Your task to perform on an android device: check battery use Image 0: 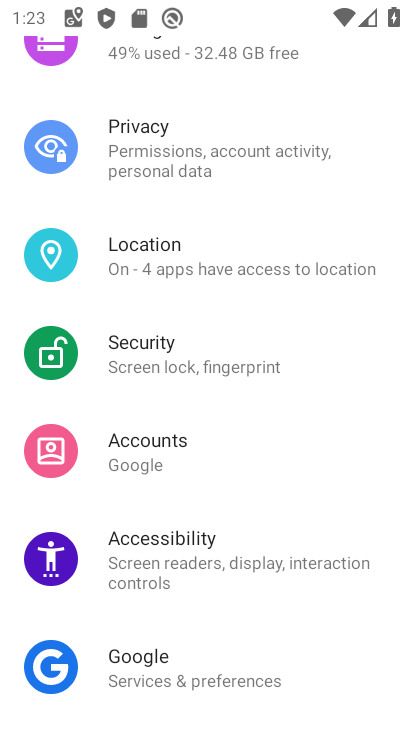
Step 0: press home button
Your task to perform on an android device: check battery use Image 1: 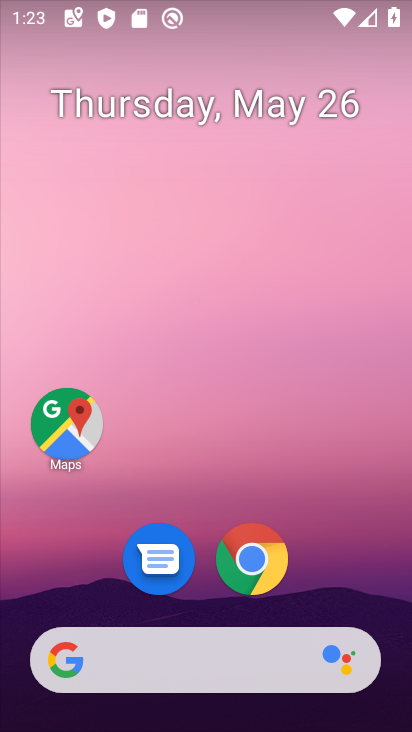
Step 1: drag from (210, 365) to (278, 24)
Your task to perform on an android device: check battery use Image 2: 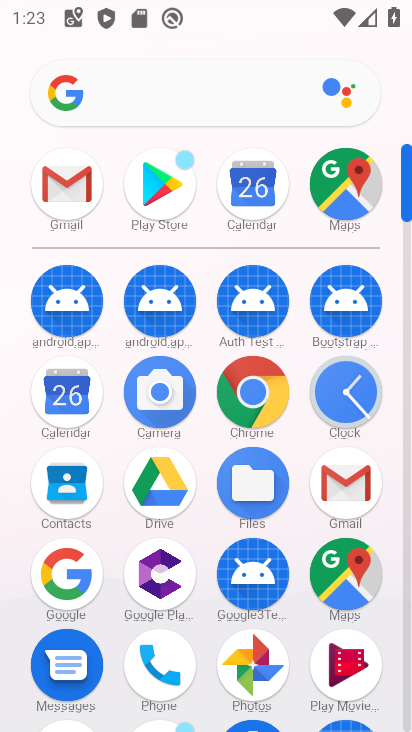
Step 2: drag from (182, 603) to (212, 242)
Your task to perform on an android device: check battery use Image 3: 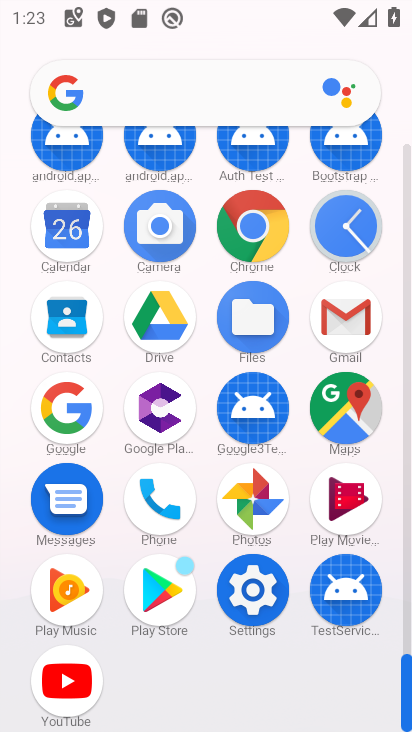
Step 3: click (257, 599)
Your task to perform on an android device: check battery use Image 4: 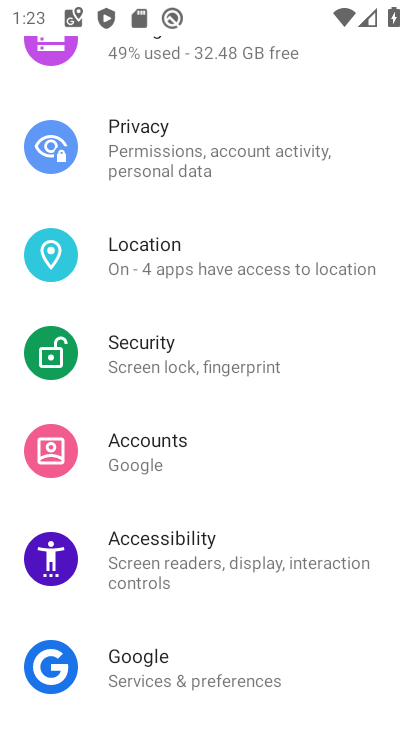
Step 4: drag from (277, 209) to (219, 606)
Your task to perform on an android device: check battery use Image 5: 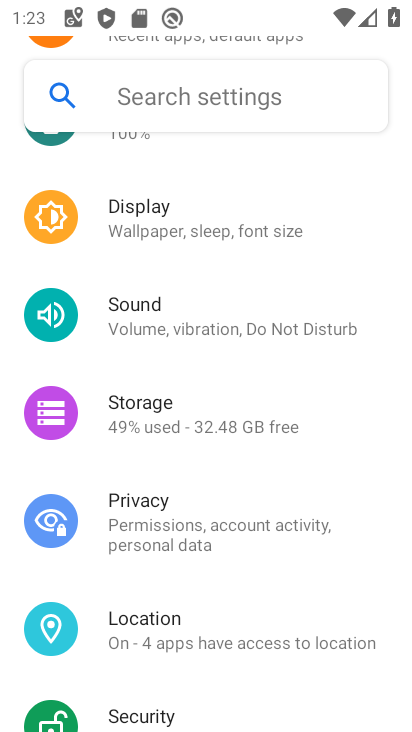
Step 5: drag from (266, 297) to (224, 612)
Your task to perform on an android device: check battery use Image 6: 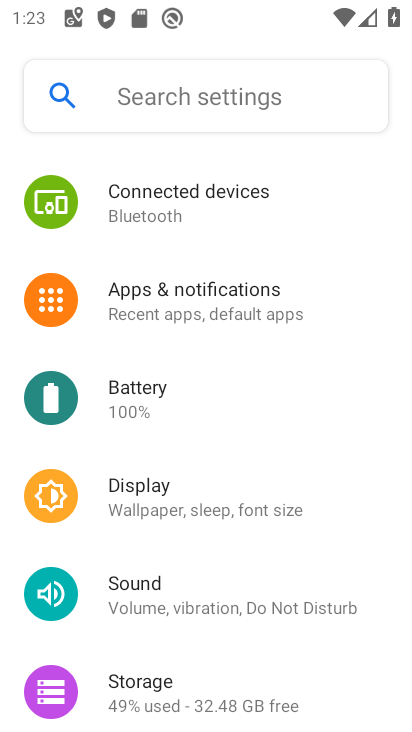
Step 6: click (154, 396)
Your task to perform on an android device: check battery use Image 7: 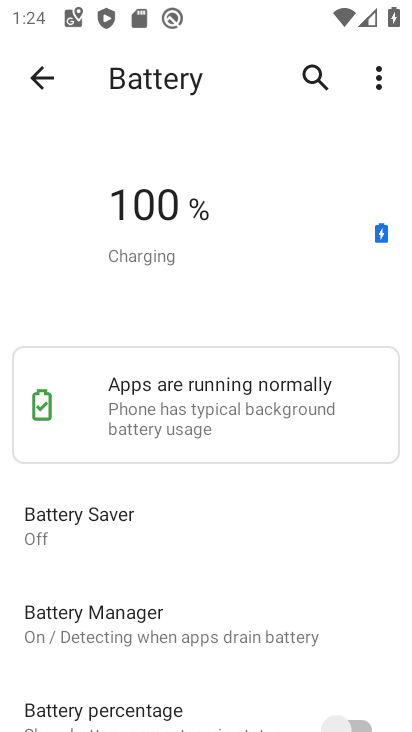
Step 7: click (376, 85)
Your task to perform on an android device: check battery use Image 8: 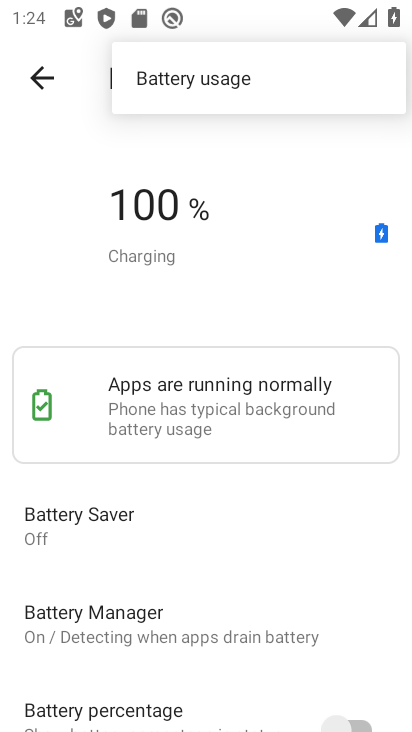
Step 8: click (203, 82)
Your task to perform on an android device: check battery use Image 9: 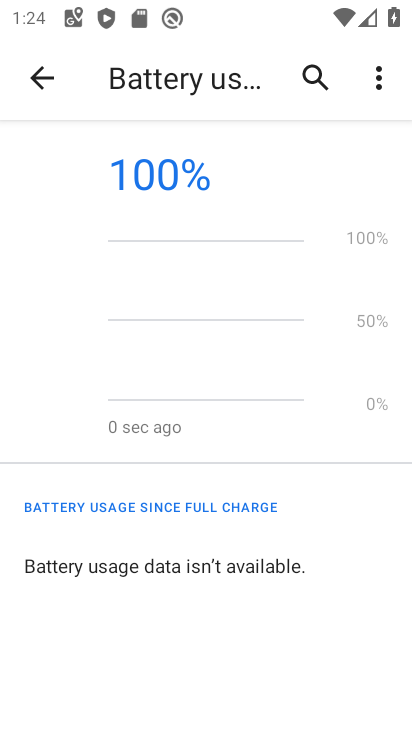
Step 9: task complete